Your task to perform on an android device: turn off notifications settings in the gmail app Image 0: 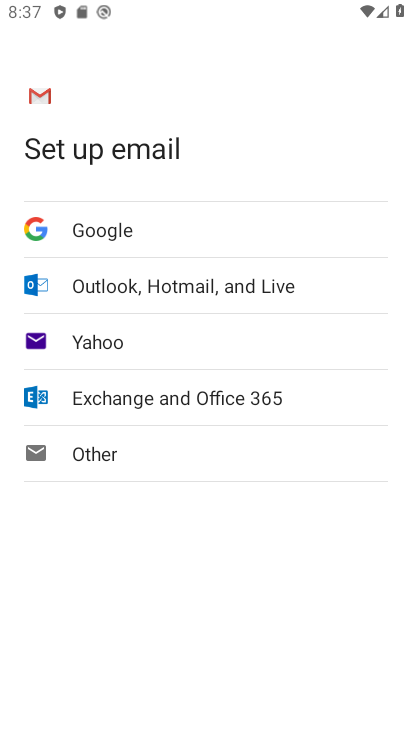
Step 0: press home button
Your task to perform on an android device: turn off notifications settings in the gmail app Image 1: 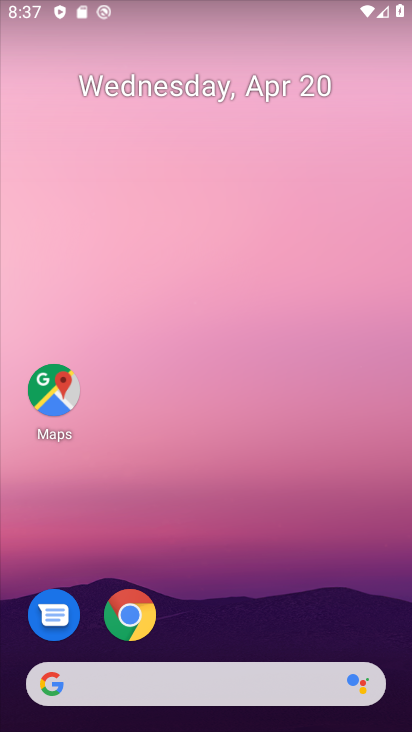
Step 1: drag from (214, 626) to (291, 91)
Your task to perform on an android device: turn off notifications settings in the gmail app Image 2: 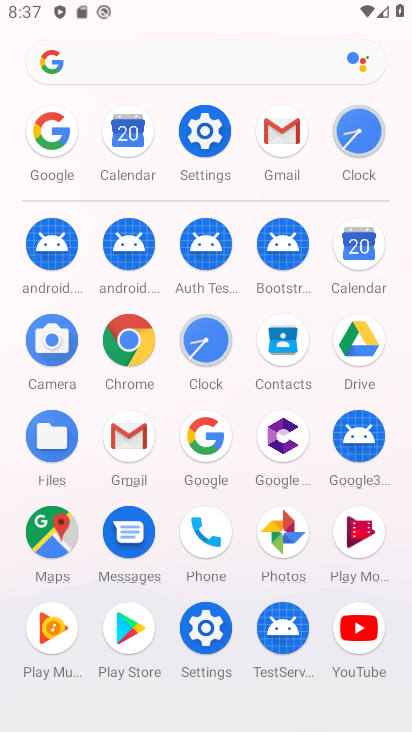
Step 2: click (280, 136)
Your task to perform on an android device: turn off notifications settings in the gmail app Image 3: 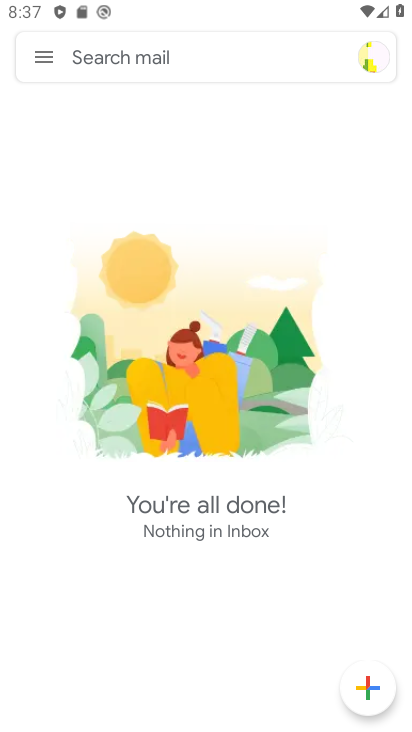
Step 3: click (47, 59)
Your task to perform on an android device: turn off notifications settings in the gmail app Image 4: 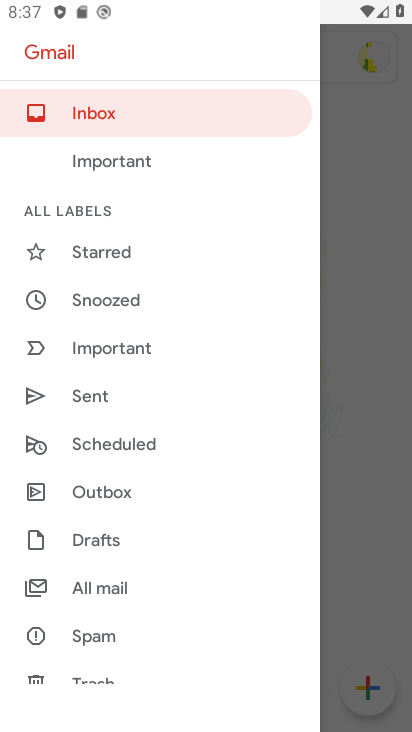
Step 4: drag from (145, 418) to (175, 330)
Your task to perform on an android device: turn off notifications settings in the gmail app Image 5: 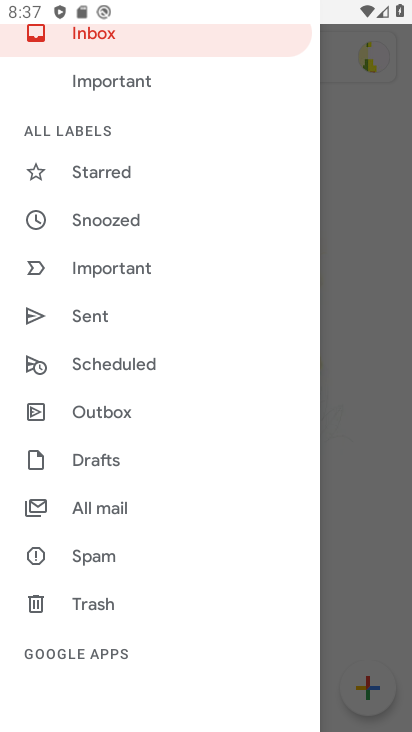
Step 5: drag from (120, 481) to (171, 410)
Your task to perform on an android device: turn off notifications settings in the gmail app Image 6: 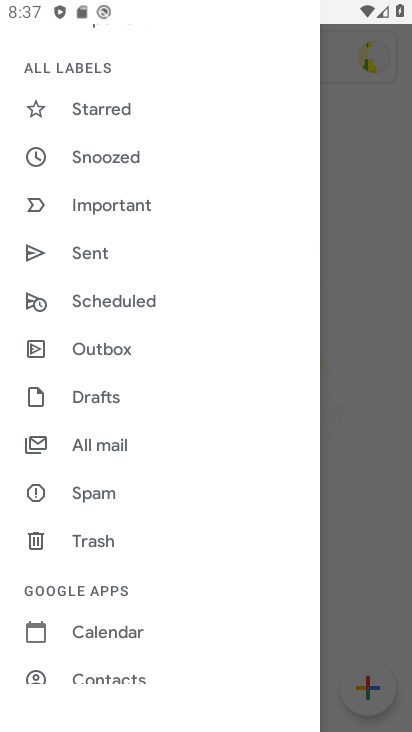
Step 6: drag from (135, 540) to (189, 457)
Your task to perform on an android device: turn off notifications settings in the gmail app Image 7: 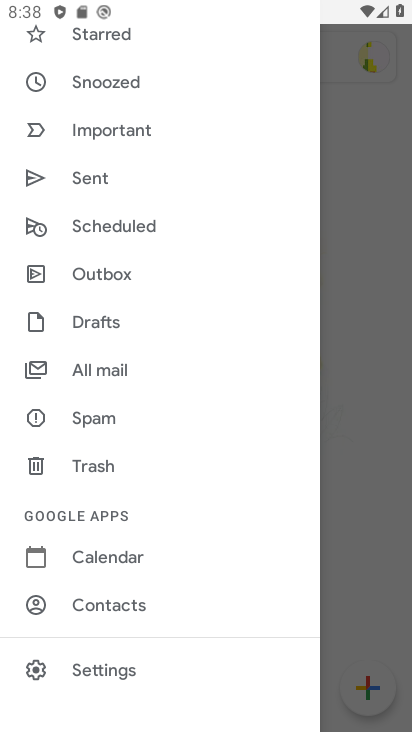
Step 7: click (115, 671)
Your task to perform on an android device: turn off notifications settings in the gmail app Image 8: 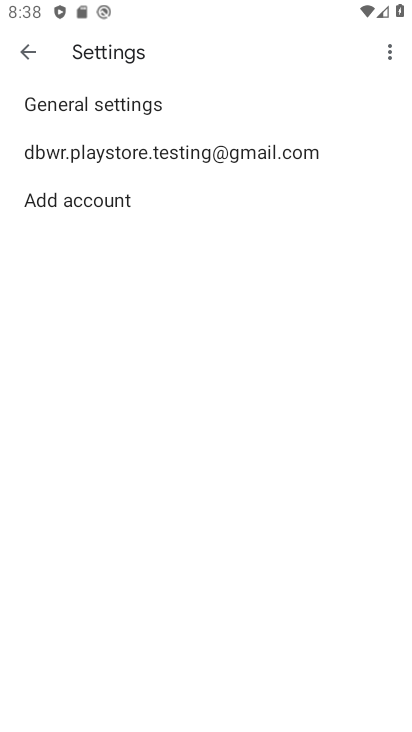
Step 8: click (231, 157)
Your task to perform on an android device: turn off notifications settings in the gmail app Image 9: 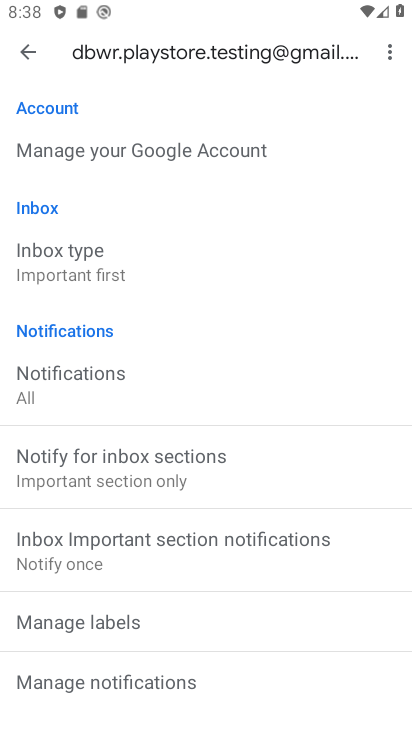
Step 9: click (114, 686)
Your task to perform on an android device: turn off notifications settings in the gmail app Image 10: 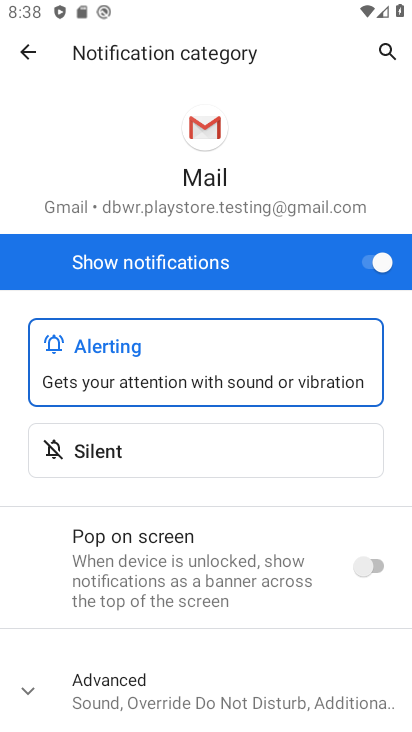
Step 10: click (385, 257)
Your task to perform on an android device: turn off notifications settings in the gmail app Image 11: 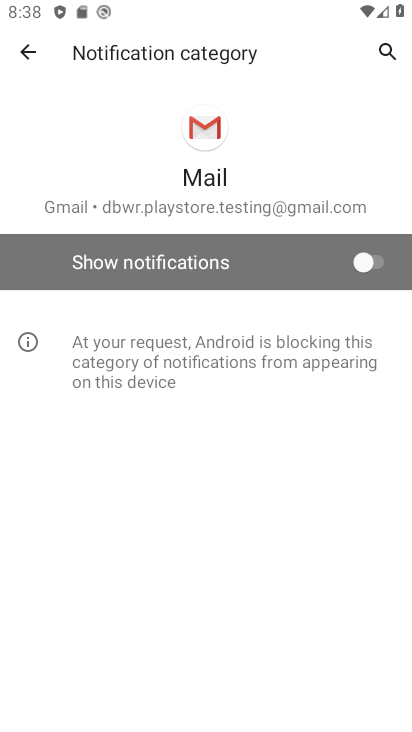
Step 11: task complete